Your task to perform on an android device: turn off wifi Image 0: 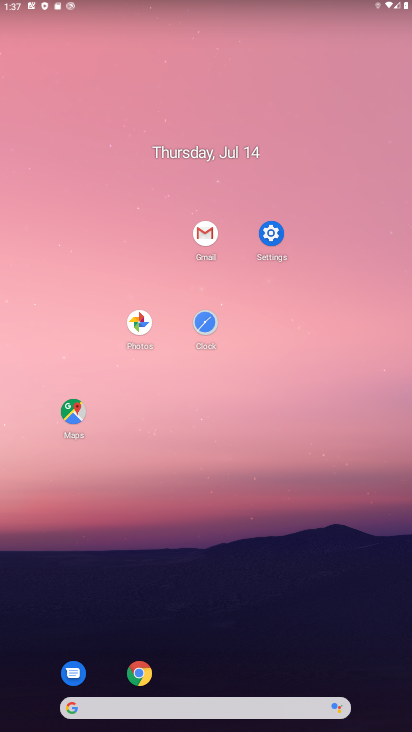
Step 0: click (270, 229)
Your task to perform on an android device: turn off wifi Image 1: 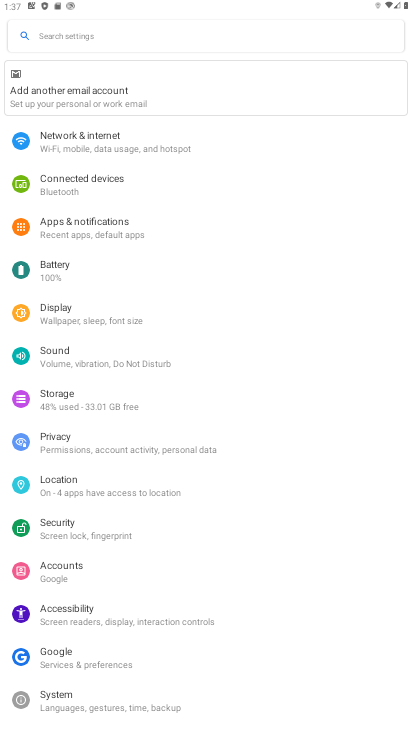
Step 1: click (161, 139)
Your task to perform on an android device: turn off wifi Image 2: 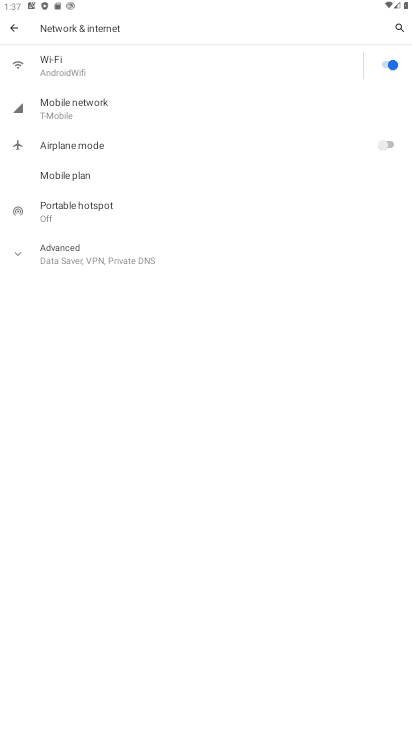
Step 2: click (376, 61)
Your task to perform on an android device: turn off wifi Image 3: 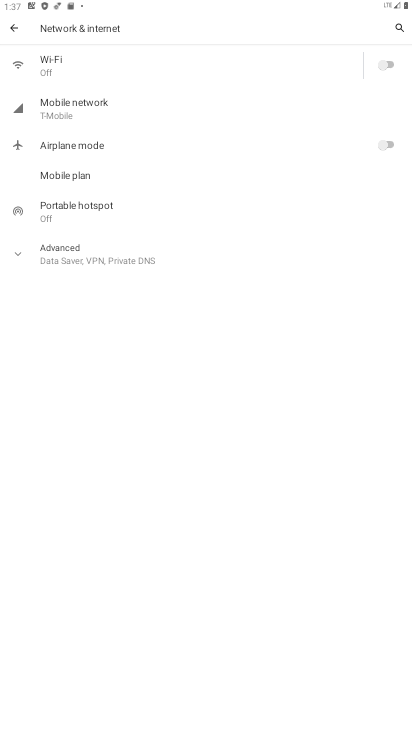
Step 3: task complete